Your task to perform on an android device: set default search engine in the chrome app Image 0: 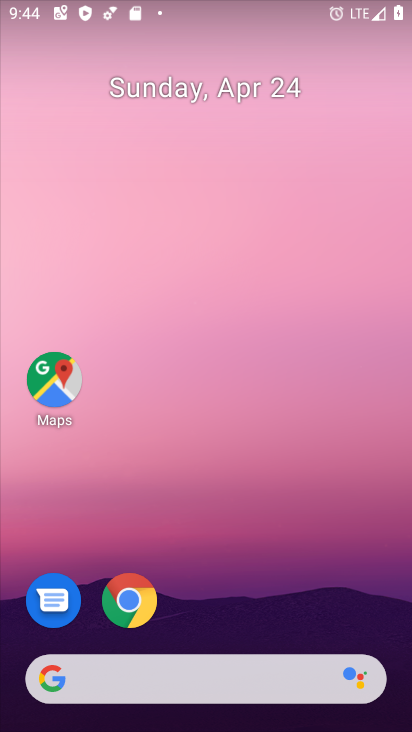
Step 0: click (119, 602)
Your task to perform on an android device: set default search engine in the chrome app Image 1: 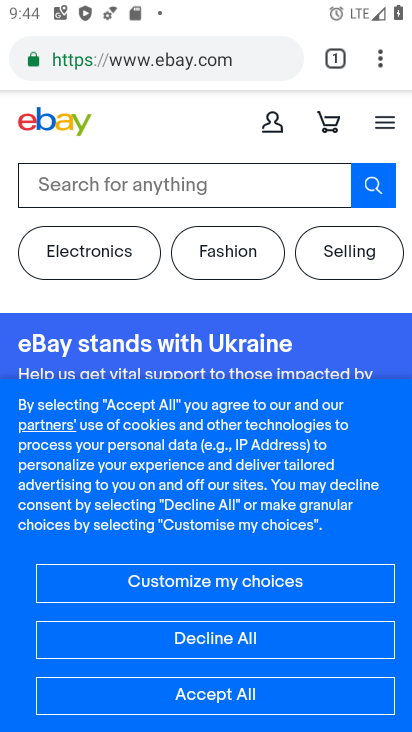
Step 1: click (381, 57)
Your task to perform on an android device: set default search engine in the chrome app Image 2: 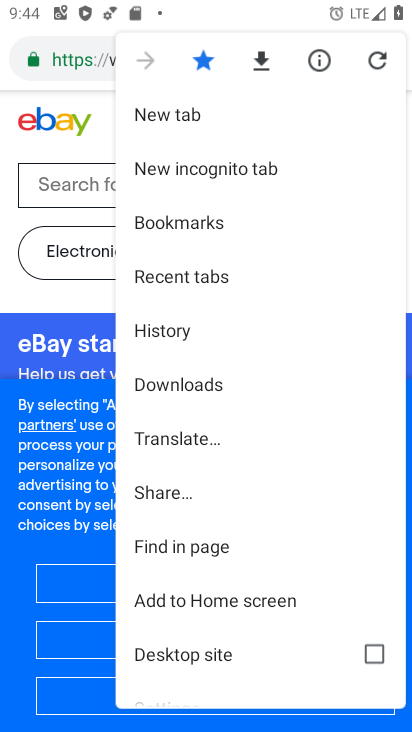
Step 2: drag from (147, 623) to (251, 313)
Your task to perform on an android device: set default search engine in the chrome app Image 3: 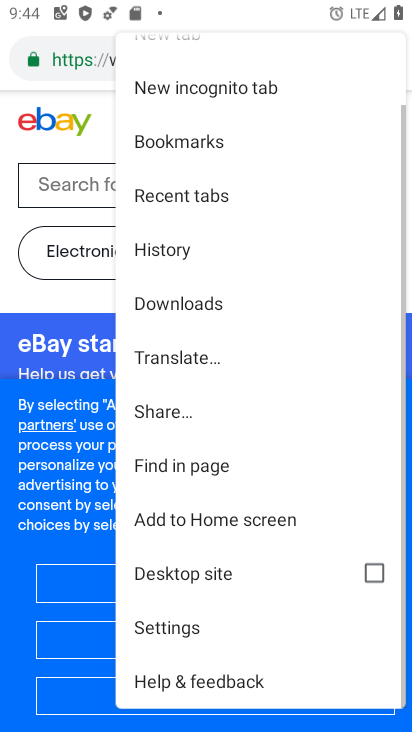
Step 3: click (180, 635)
Your task to perform on an android device: set default search engine in the chrome app Image 4: 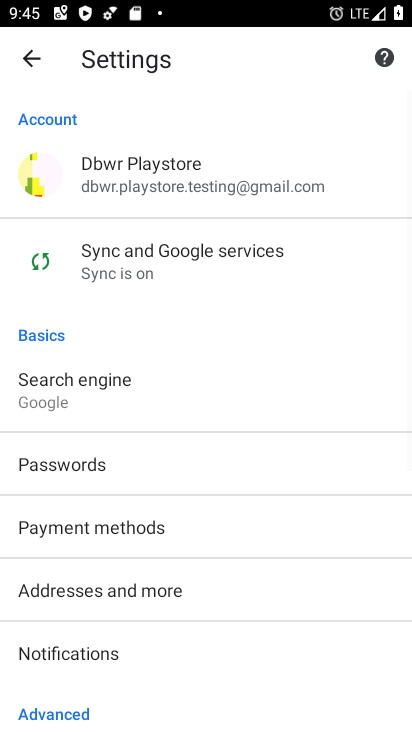
Step 4: click (119, 403)
Your task to perform on an android device: set default search engine in the chrome app Image 5: 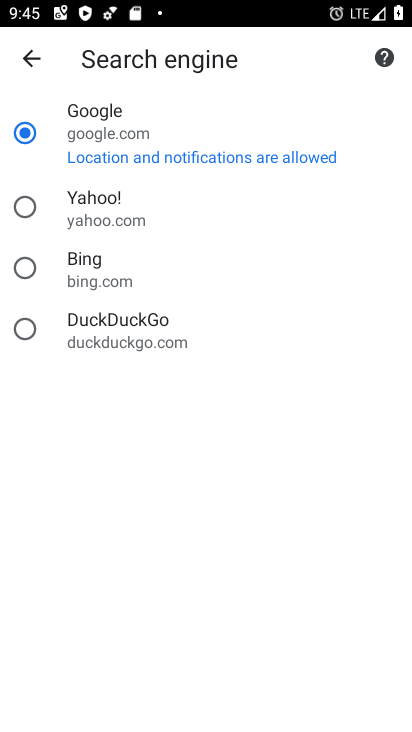
Step 5: click (95, 157)
Your task to perform on an android device: set default search engine in the chrome app Image 6: 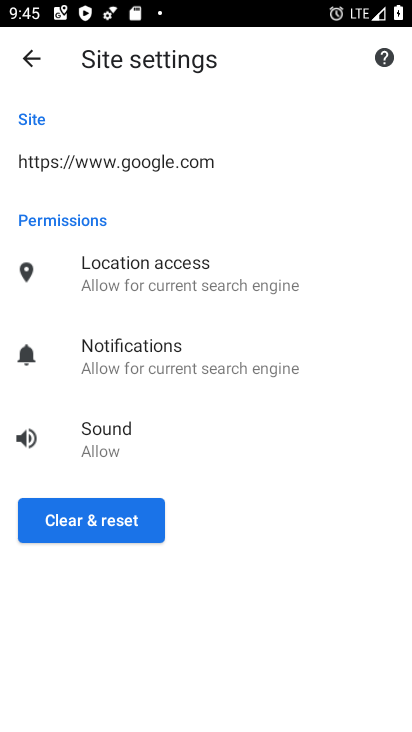
Step 6: click (91, 526)
Your task to perform on an android device: set default search engine in the chrome app Image 7: 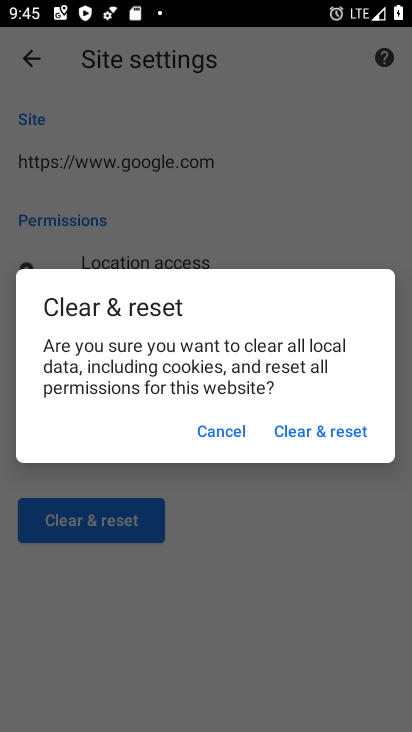
Step 7: click (327, 430)
Your task to perform on an android device: set default search engine in the chrome app Image 8: 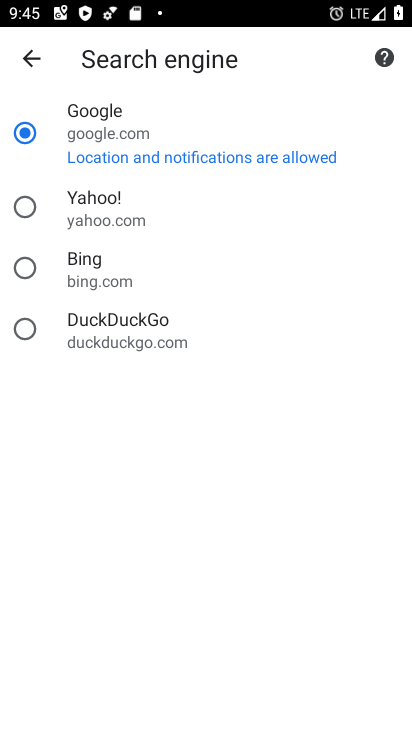
Step 8: task complete